Your task to perform on an android device: change text size in settings app Image 0: 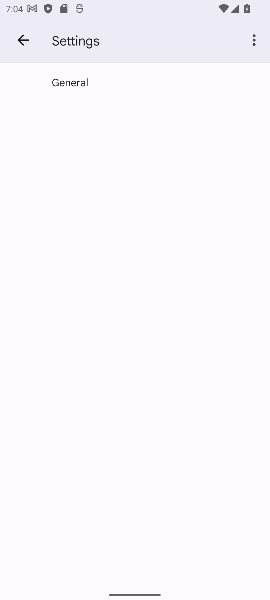
Step 0: press home button
Your task to perform on an android device: change text size in settings app Image 1: 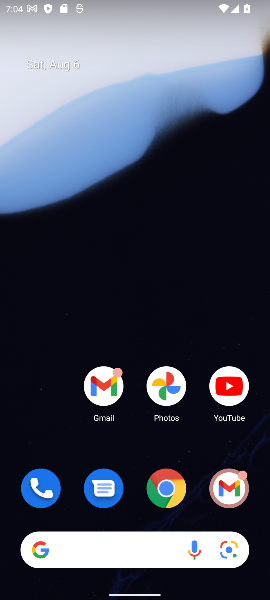
Step 1: drag from (137, 511) to (122, 198)
Your task to perform on an android device: change text size in settings app Image 2: 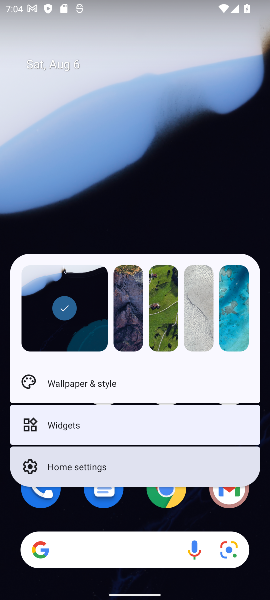
Step 2: drag from (131, 585) to (21, 222)
Your task to perform on an android device: change text size in settings app Image 3: 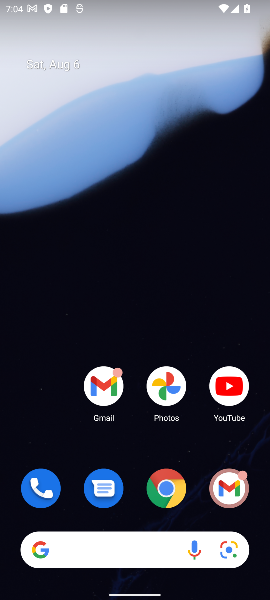
Step 3: click (110, 115)
Your task to perform on an android device: change text size in settings app Image 4: 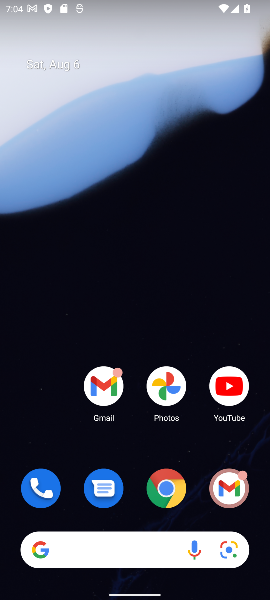
Step 4: drag from (128, 577) to (35, 157)
Your task to perform on an android device: change text size in settings app Image 5: 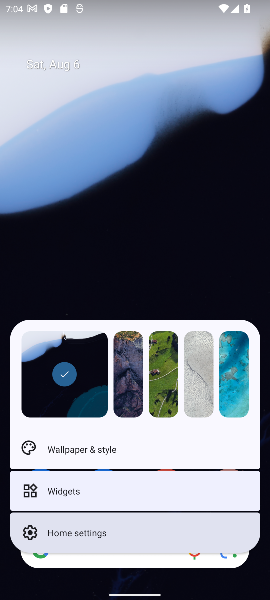
Step 5: click (81, 125)
Your task to perform on an android device: change text size in settings app Image 6: 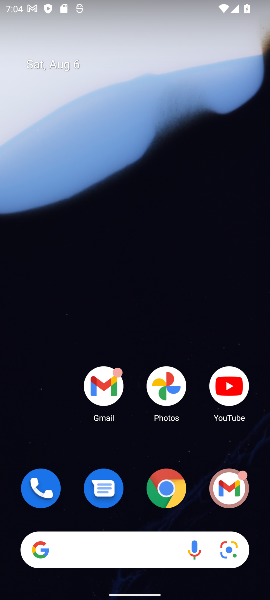
Step 6: drag from (137, 590) to (2, 199)
Your task to perform on an android device: change text size in settings app Image 7: 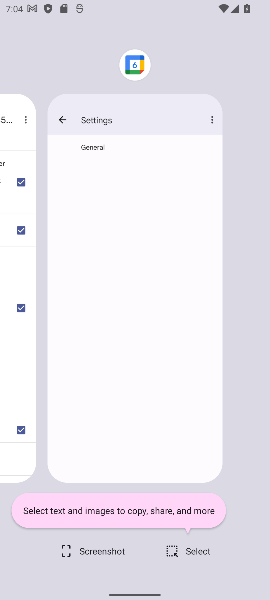
Step 7: drag from (131, 591) to (181, 151)
Your task to perform on an android device: change text size in settings app Image 8: 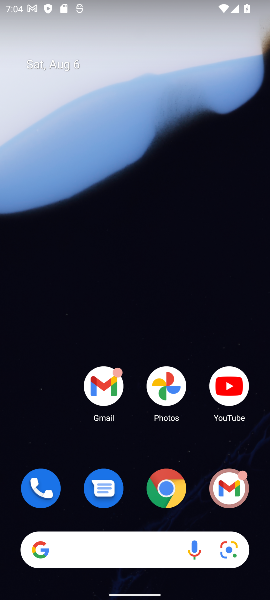
Step 8: drag from (144, 589) to (111, 174)
Your task to perform on an android device: change text size in settings app Image 9: 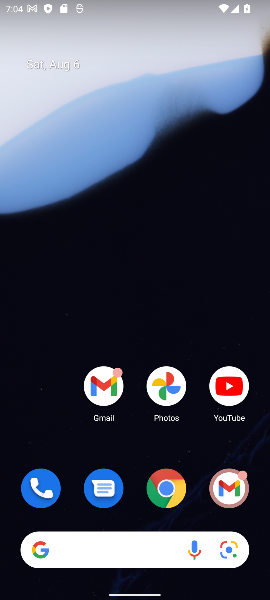
Step 9: drag from (135, 594) to (112, 49)
Your task to perform on an android device: change text size in settings app Image 10: 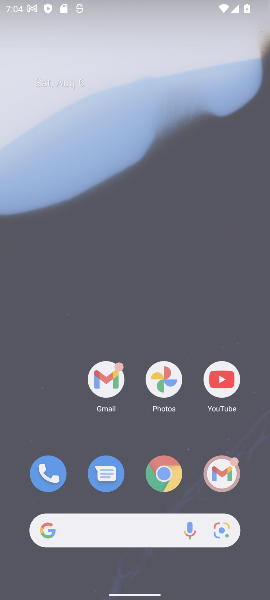
Step 10: drag from (137, 342) to (136, 3)
Your task to perform on an android device: change text size in settings app Image 11: 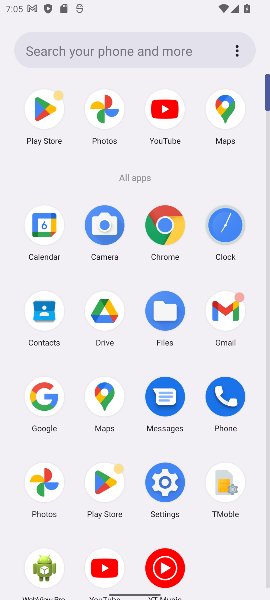
Step 11: click (163, 482)
Your task to perform on an android device: change text size in settings app Image 12: 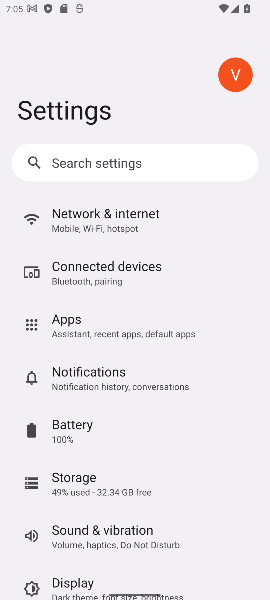
Step 12: drag from (211, 499) to (188, 271)
Your task to perform on an android device: change text size in settings app Image 13: 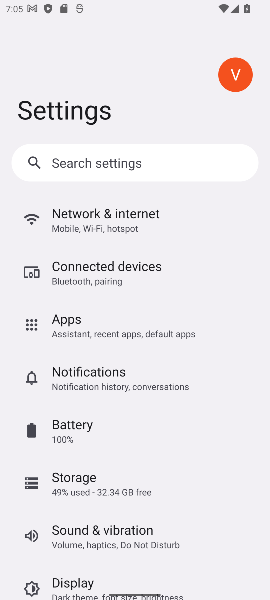
Step 13: drag from (247, 587) to (232, 281)
Your task to perform on an android device: change text size in settings app Image 14: 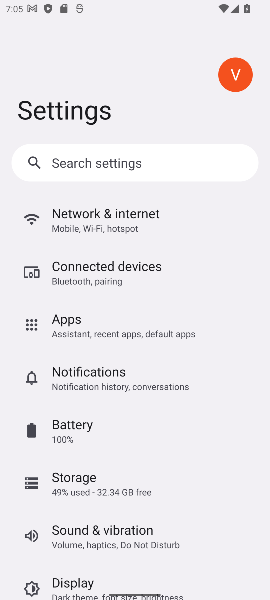
Step 14: drag from (241, 534) to (195, 301)
Your task to perform on an android device: change text size in settings app Image 15: 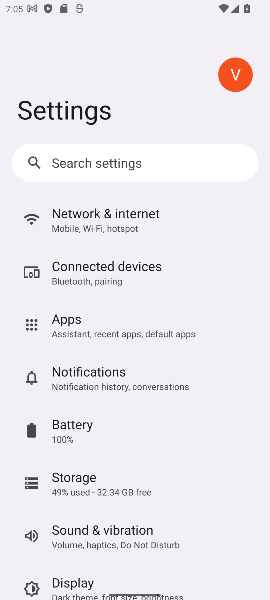
Step 15: drag from (213, 574) to (179, 225)
Your task to perform on an android device: change text size in settings app Image 16: 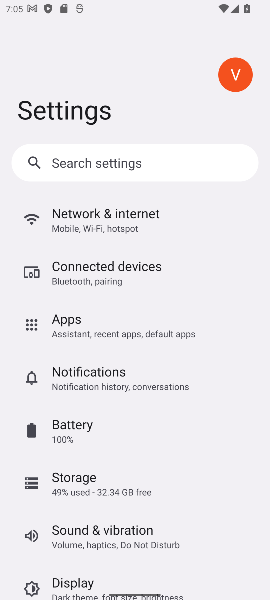
Step 16: drag from (217, 582) to (186, 277)
Your task to perform on an android device: change text size in settings app Image 17: 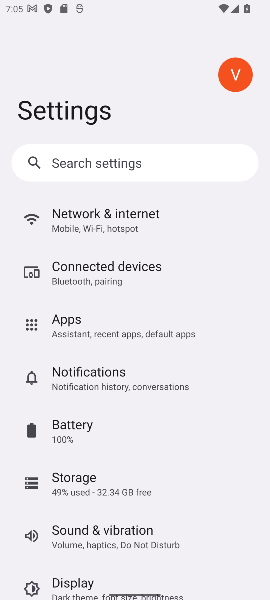
Step 17: drag from (210, 584) to (200, 181)
Your task to perform on an android device: change text size in settings app Image 18: 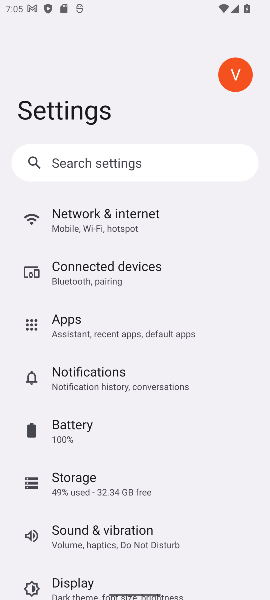
Step 18: drag from (204, 566) to (195, 226)
Your task to perform on an android device: change text size in settings app Image 19: 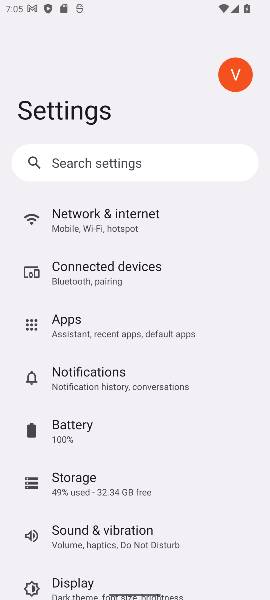
Step 19: drag from (232, 568) to (244, 288)
Your task to perform on an android device: change text size in settings app Image 20: 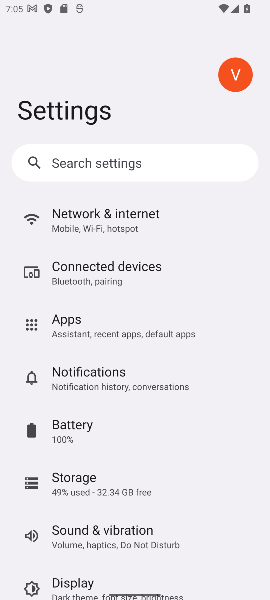
Step 20: drag from (219, 535) to (259, 166)
Your task to perform on an android device: change text size in settings app Image 21: 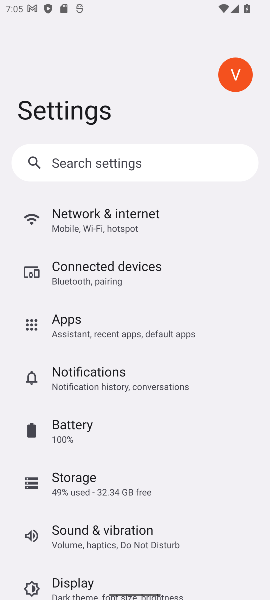
Step 21: click (233, 165)
Your task to perform on an android device: change text size in settings app Image 22: 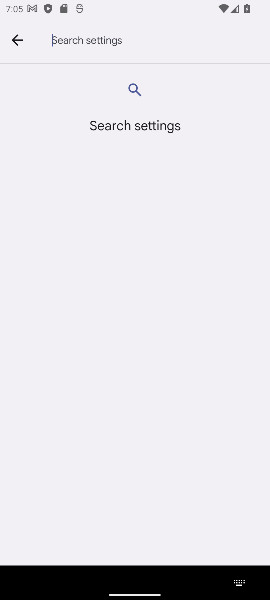
Step 22: type "text"
Your task to perform on an android device: change text size in settings app Image 23: 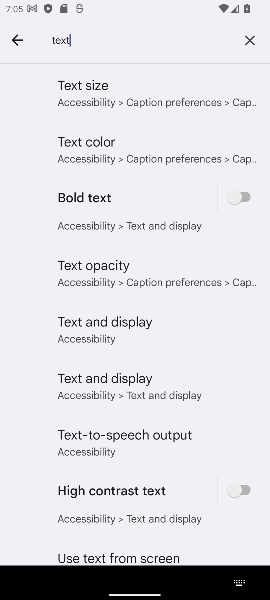
Step 23: click (90, 88)
Your task to perform on an android device: change text size in settings app Image 24: 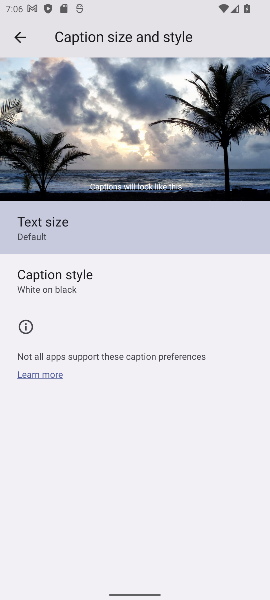
Step 24: click (125, 247)
Your task to perform on an android device: change text size in settings app Image 25: 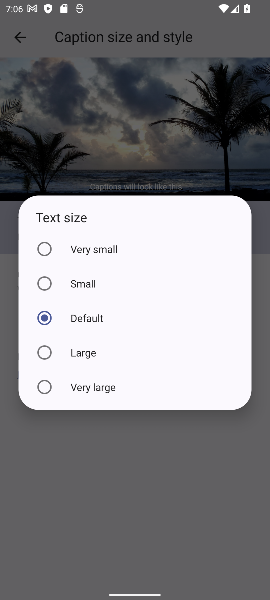
Step 25: click (37, 355)
Your task to perform on an android device: change text size in settings app Image 26: 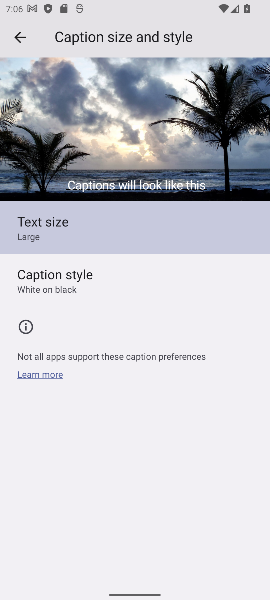
Step 26: task complete